Your task to perform on an android device: Open Wikipedia Image 0: 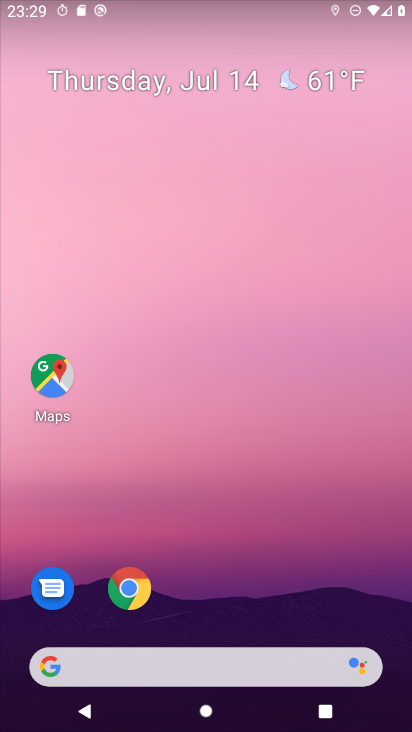
Step 0: drag from (371, 622) to (369, 110)
Your task to perform on an android device: Open Wikipedia Image 1: 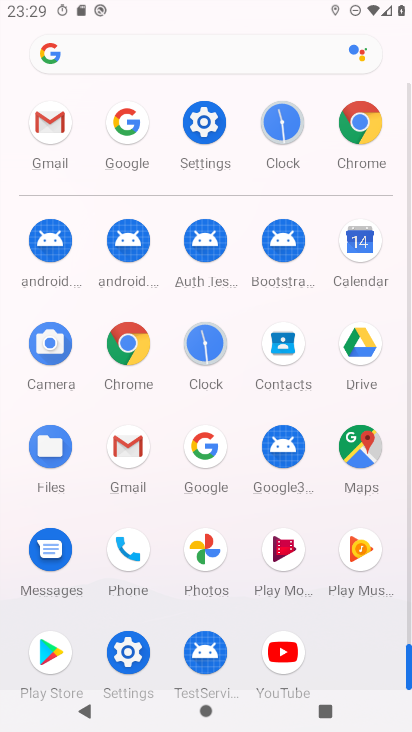
Step 1: click (374, 138)
Your task to perform on an android device: Open Wikipedia Image 2: 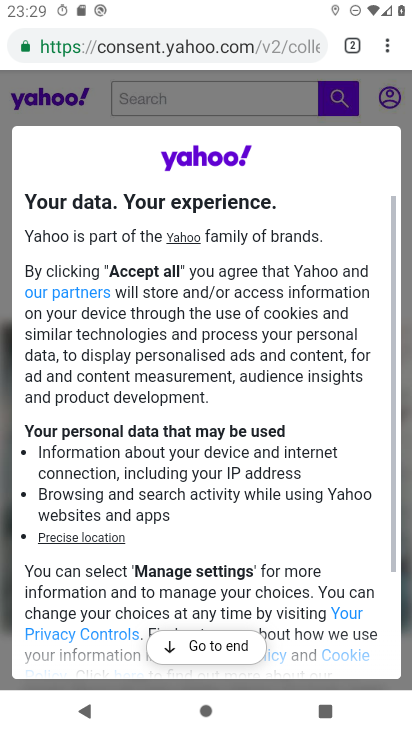
Step 2: click (278, 59)
Your task to perform on an android device: Open Wikipedia Image 3: 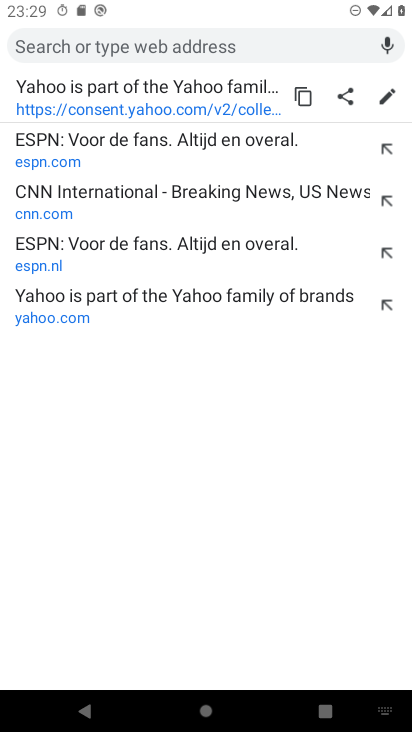
Step 3: type "wikipedia"
Your task to perform on an android device: Open Wikipedia Image 4: 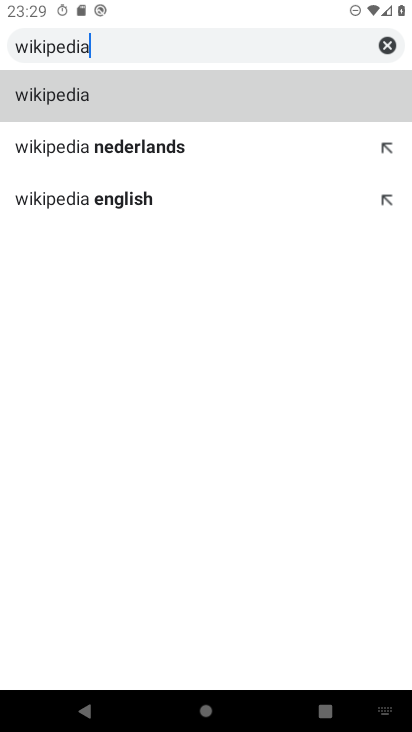
Step 4: click (138, 101)
Your task to perform on an android device: Open Wikipedia Image 5: 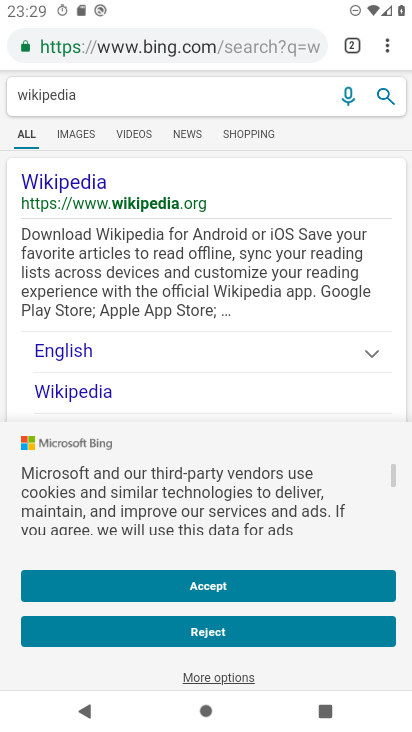
Step 5: task complete